Your task to perform on an android device: install app "Walmart Shopping & Grocery" Image 0: 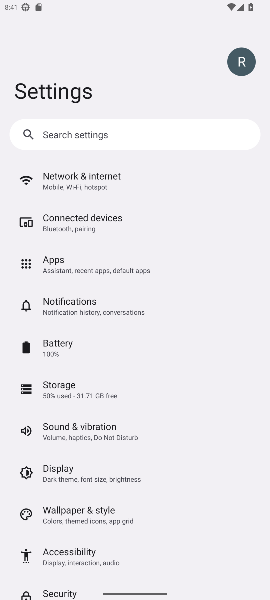
Step 0: press home button
Your task to perform on an android device: install app "Walmart Shopping & Grocery" Image 1: 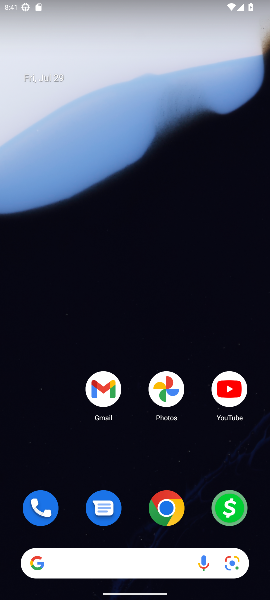
Step 1: drag from (187, 571) to (187, 46)
Your task to perform on an android device: install app "Walmart Shopping & Grocery" Image 2: 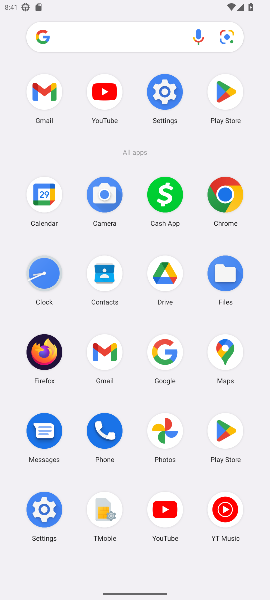
Step 2: click (228, 89)
Your task to perform on an android device: install app "Walmart Shopping & Grocery" Image 3: 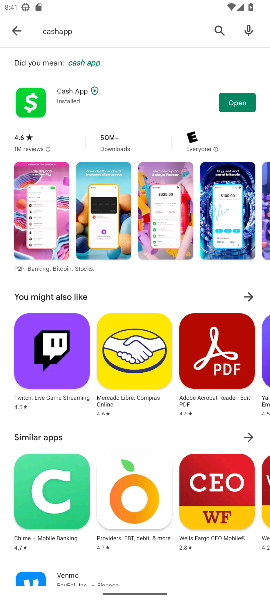
Step 3: click (222, 35)
Your task to perform on an android device: install app "Walmart Shopping & Grocery" Image 4: 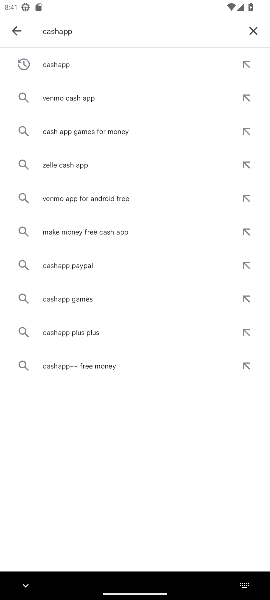
Step 4: click (248, 30)
Your task to perform on an android device: install app "Walmart Shopping & Grocery" Image 5: 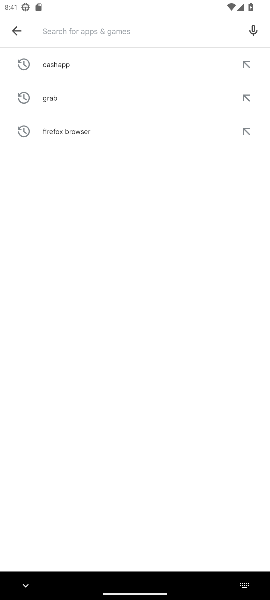
Step 5: type "walmart shopping & grocery"
Your task to perform on an android device: install app "Walmart Shopping & Grocery" Image 6: 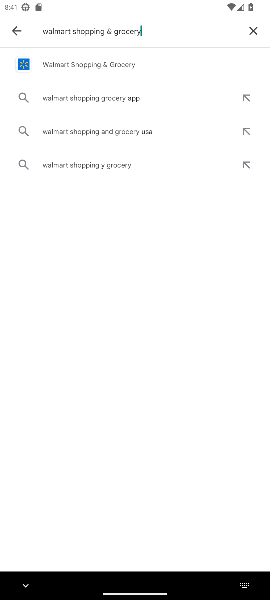
Step 6: click (65, 60)
Your task to perform on an android device: install app "Walmart Shopping & Grocery" Image 7: 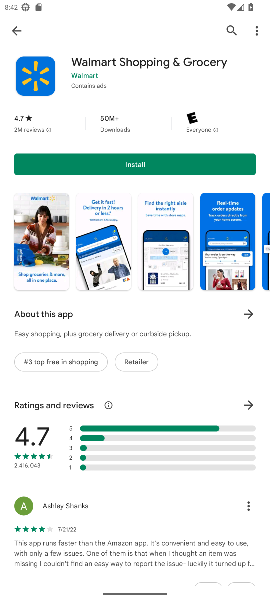
Step 7: click (186, 159)
Your task to perform on an android device: install app "Walmart Shopping & Grocery" Image 8: 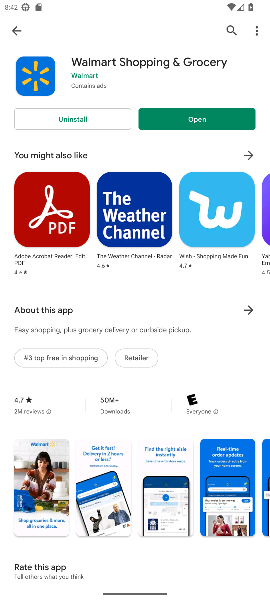
Step 8: task complete